Your task to perform on an android device: Search for "acer predator" on bestbuy, select the first entry, and add it to the cart. Image 0: 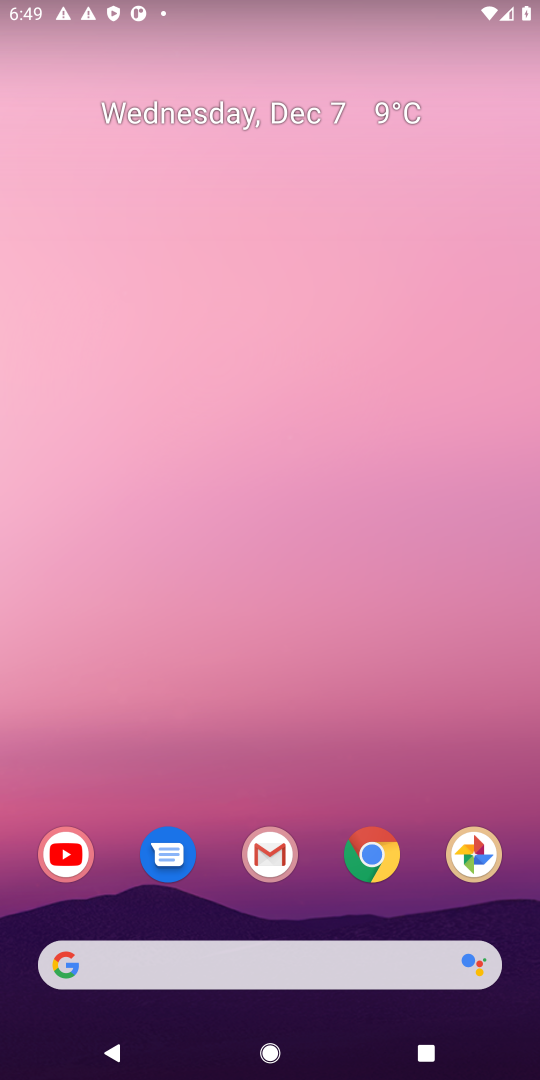
Step 0: click (367, 967)
Your task to perform on an android device: Search for "acer predator" on bestbuy, select the first entry, and add it to the cart. Image 1: 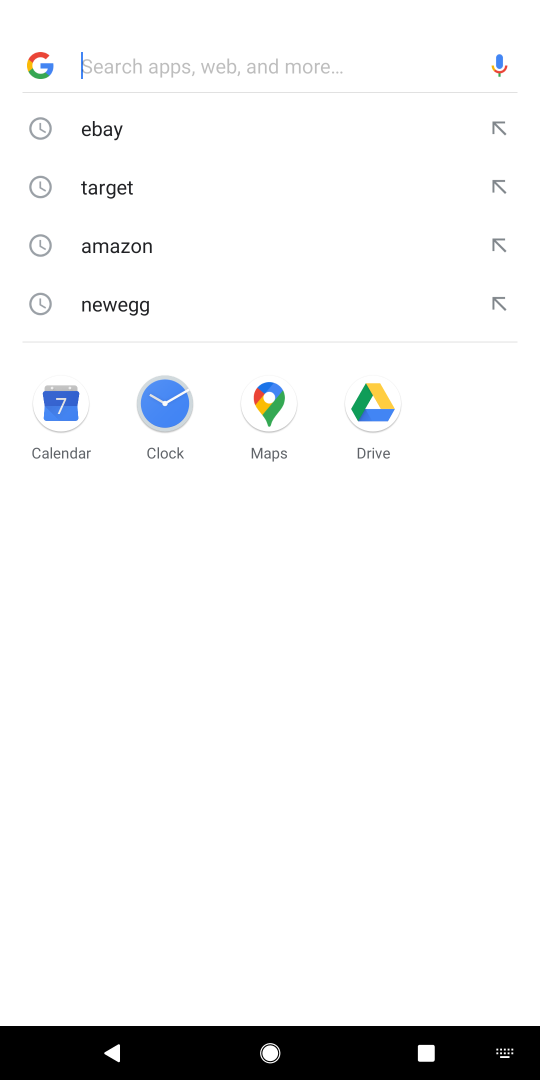
Step 1: type "bestbuy"
Your task to perform on an android device: Search for "acer predator" on bestbuy, select the first entry, and add it to the cart. Image 2: 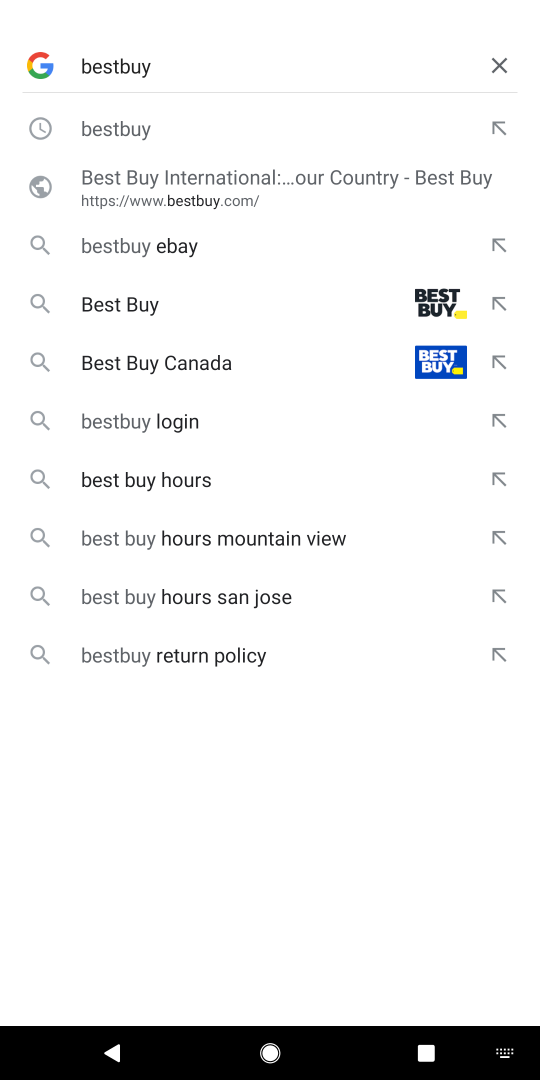
Step 2: click (108, 291)
Your task to perform on an android device: Search for "acer predator" on bestbuy, select the first entry, and add it to the cart. Image 3: 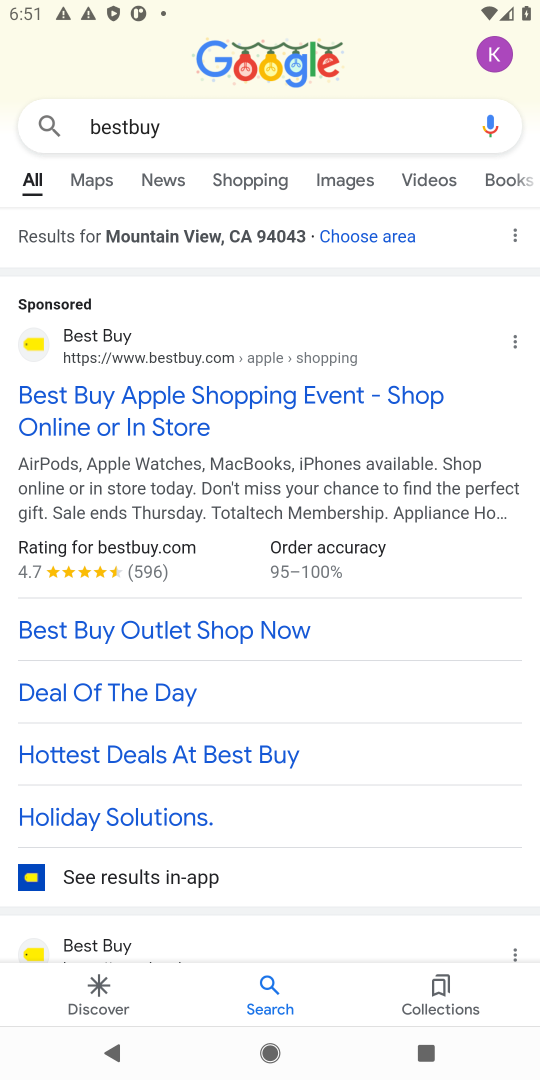
Step 3: click (129, 433)
Your task to perform on an android device: Search for "acer predator" on bestbuy, select the first entry, and add it to the cart. Image 4: 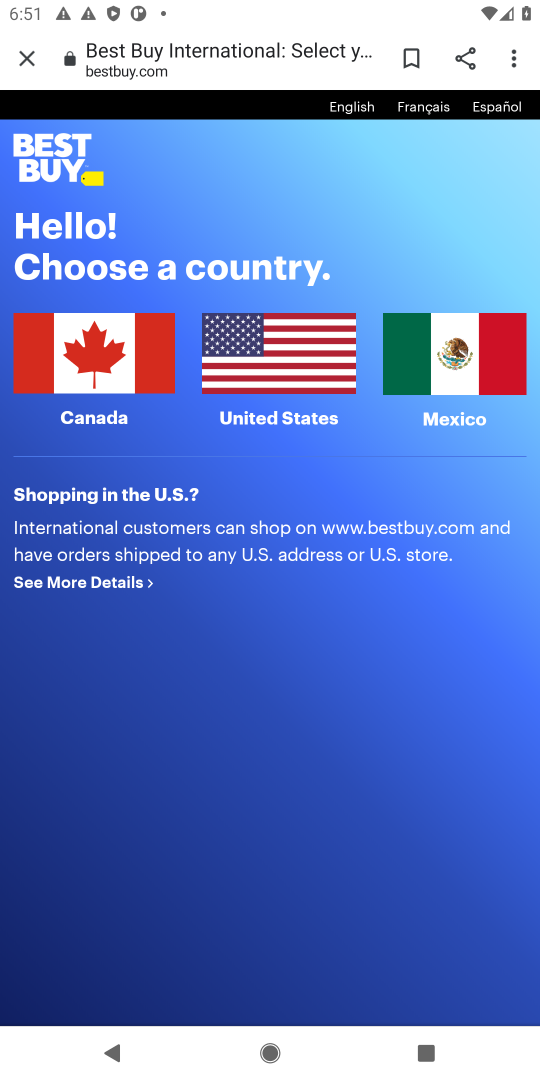
Step 4: click (155, 351)
Your task to perform on an android device: Search for "acer predator" on bestbuy, select the first entry, and add it to the cart. Image 5: 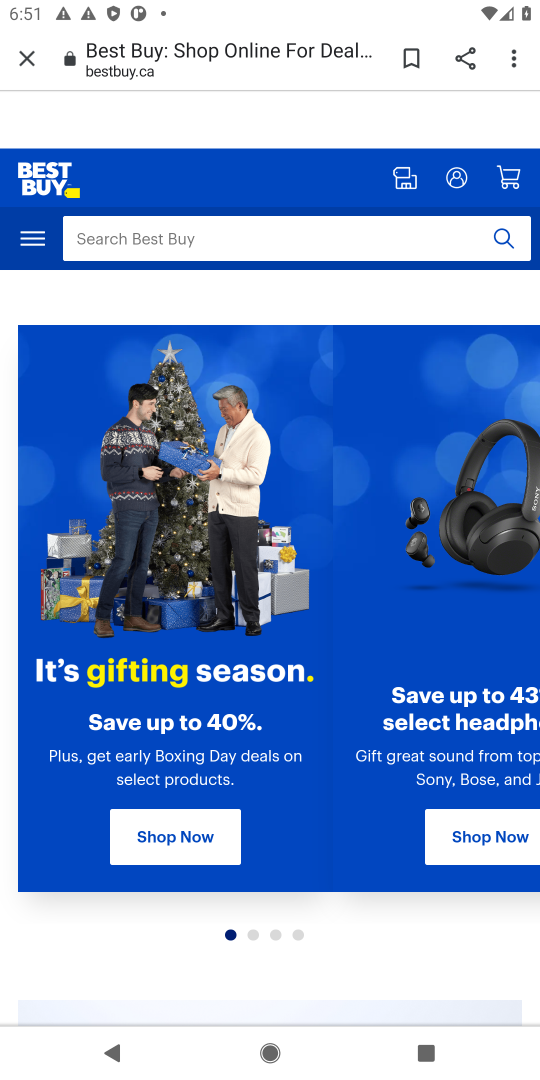
Step 5: task complete